Your task to perform on an android device: open chrome privacy settings Image 0: 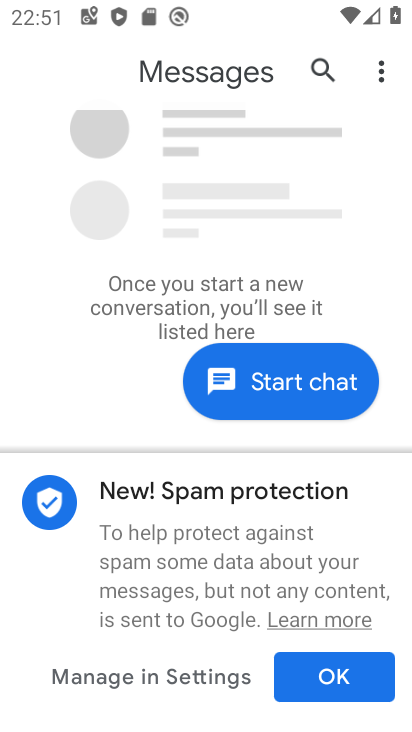
Step 0: press home button
Your task to perform on an android device: open chrome privacy settings Image 1: 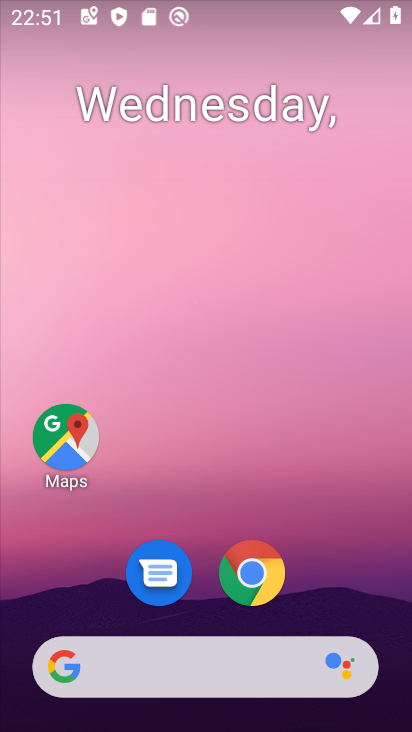
Step 1: click (254, 575)
Your task to perform on an android device: open chrome privacy settings Image 2: 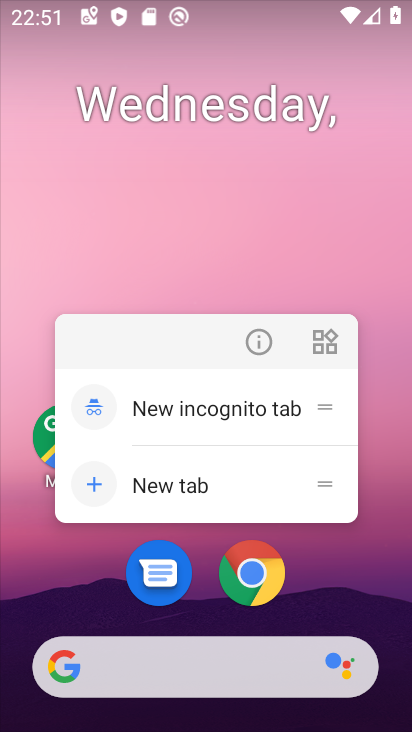
Step 2: click (254, 575)
Your task to perform on an android device: open chrome privacy settings Image 3: 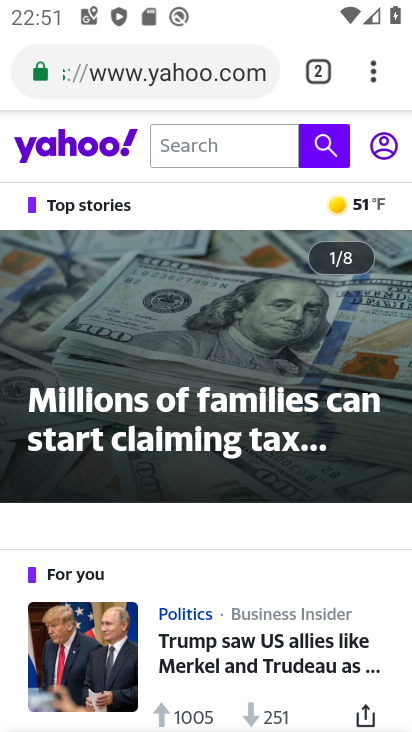
Step 3: click (375, 69)
Your task to perform on an android device: open chrome privacy settings Image 4: 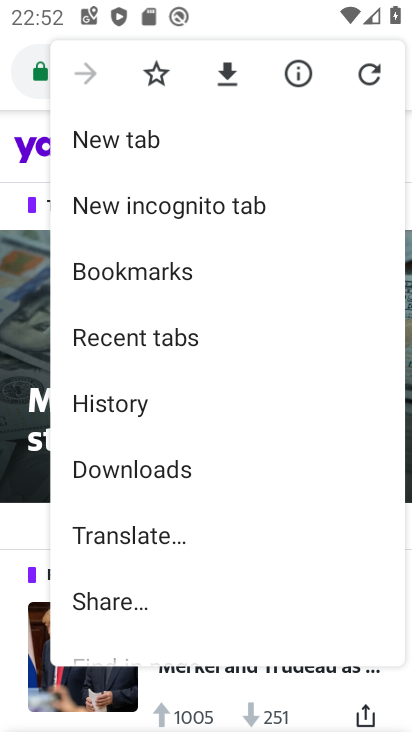
Step 4: drag from (176, 557) to (223, 236)
Your task to perform on an android device: open chrome privacy settings Image 5: 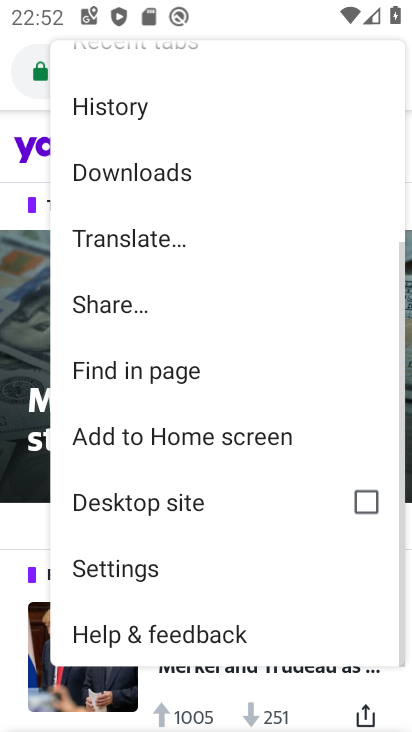
Step 5: click (125, 566)
Your task to perform on an android device: open chrome privacy settings Image 6: 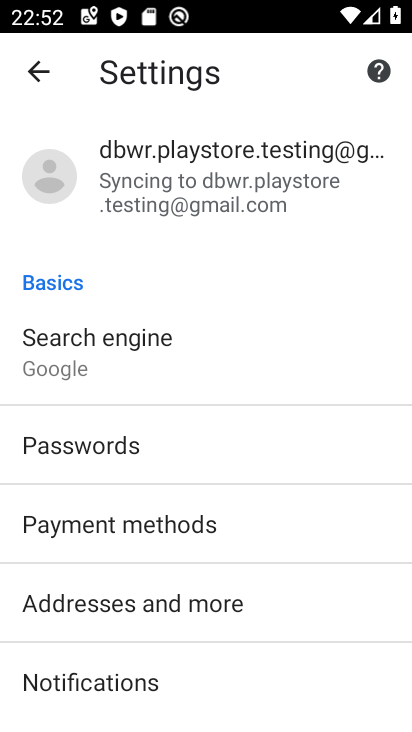
Step 6: drag from (131, 677) to (205, 294)
Your task to perform on an android device: open chrome privacy settings Image 7: 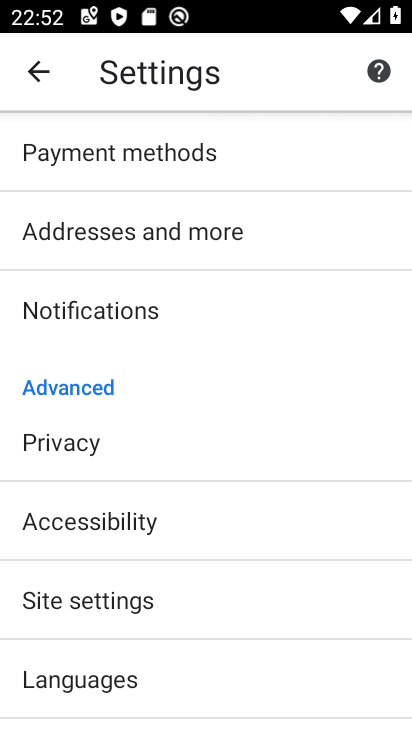
Step 7: click (71, 439)
Your task to perform on an android device: open chrome privacy settings Image 8: 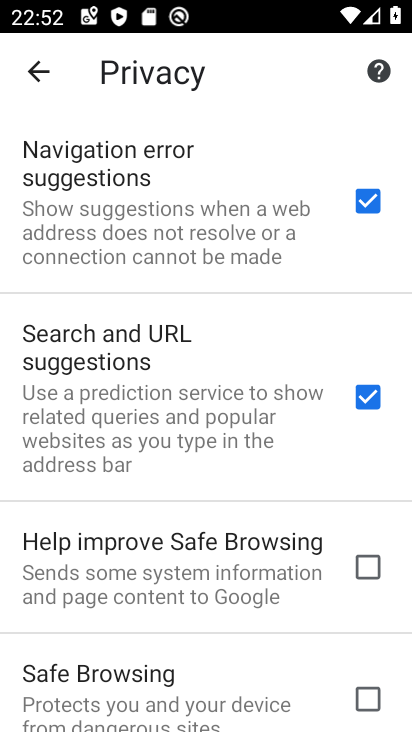
Step 8: task complete